Your task to perform on an android device: turn on location history Image 0: 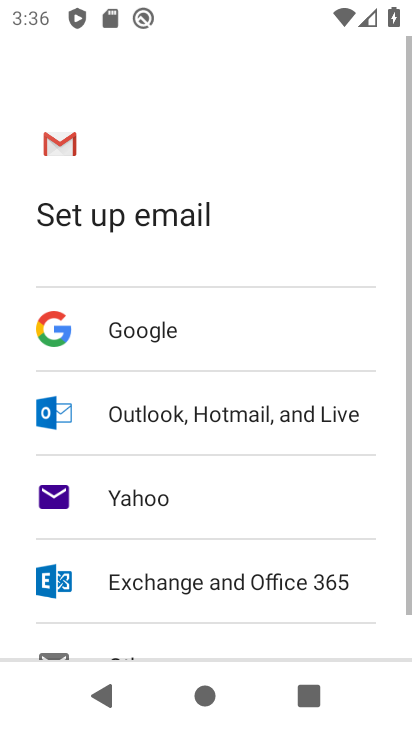
Step 0: press home button
Your task to perform on an android device: turn on location history Image 1: 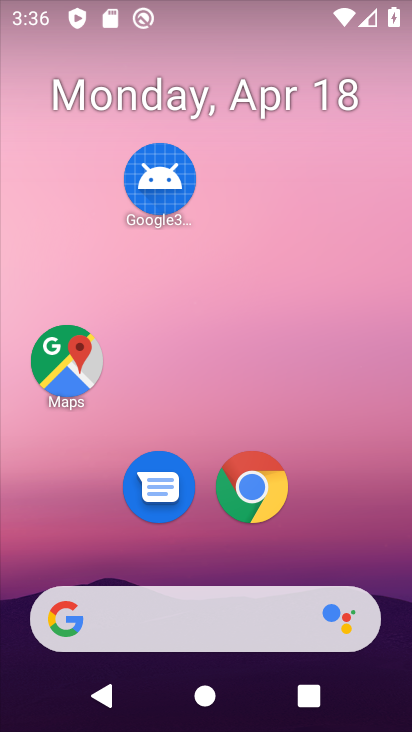
Step 1: drag from (198, 568) to (242, 25)
Your task to perform on an android device: turn on location history Image 2: 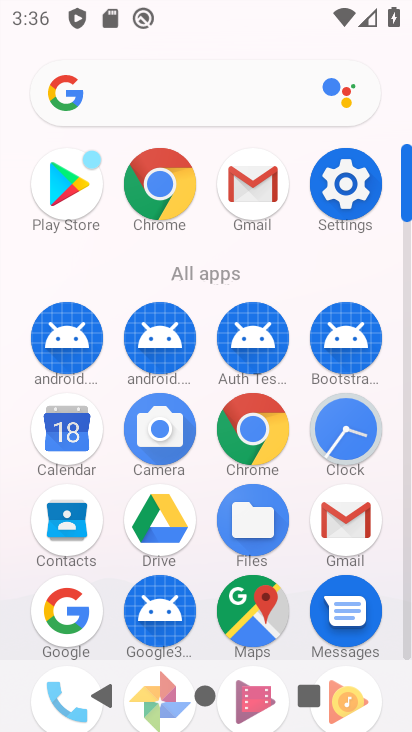
Step 2: click (339, 190)
Your task to perform on an android device: turn on location history Image 3: 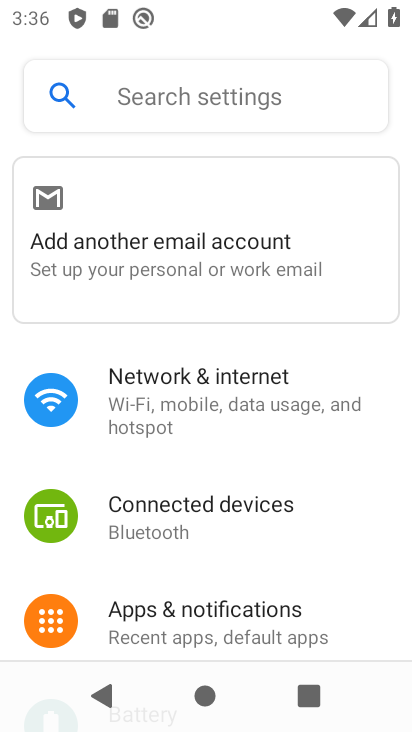
Step 3: drag from (250, 497) to (247, 53)
Your task to perform on an android device: turn on location history Image 4: 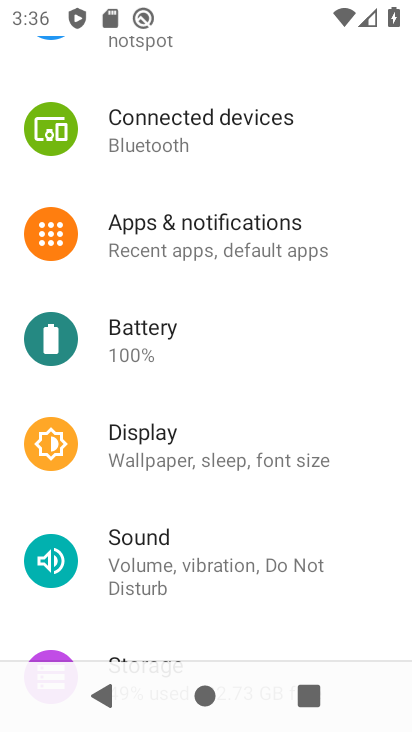
Step 4: drag from (212, 512) to (228, 247)
Your task to perform on an android device: turn on location history Image 5: 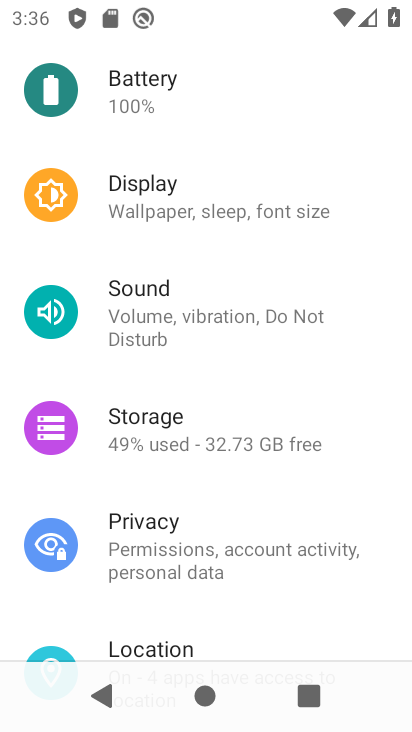
Step 5: drag from (214, 625) to (208, 428)
Your task to perform on an android device: turn on location history Image 6: 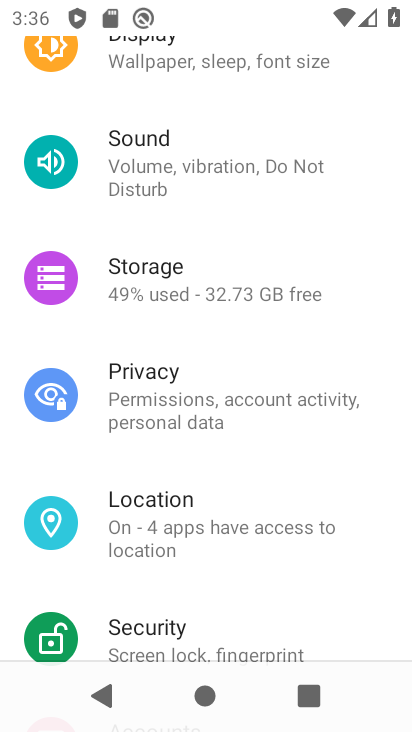
Step 6: click (169, 501)
Your task to perform on an android device: turn on location history Image 7: 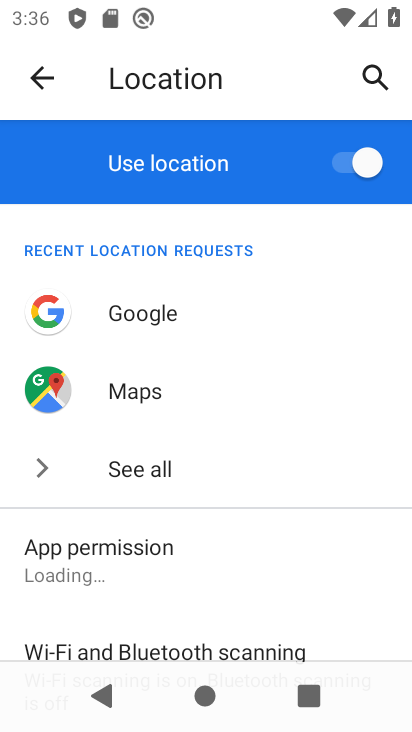
Step 7: drag from (199, 566) to (180, 297)
Your task to perform on an android device: turn on location history Image 8: 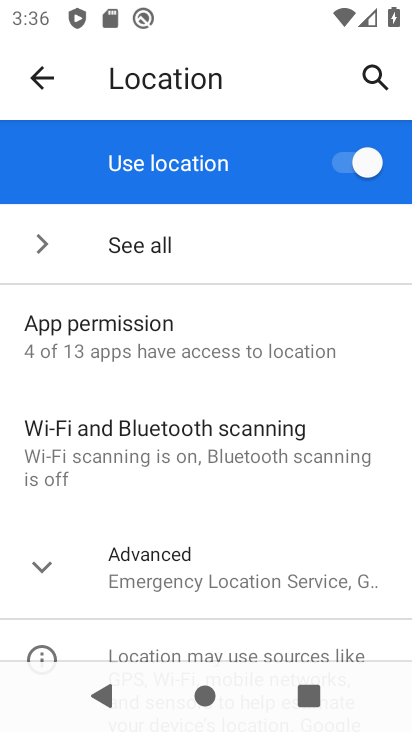
Step 8: click (166, 563)
Your task to perform on an android device: turn on location history Image 9: 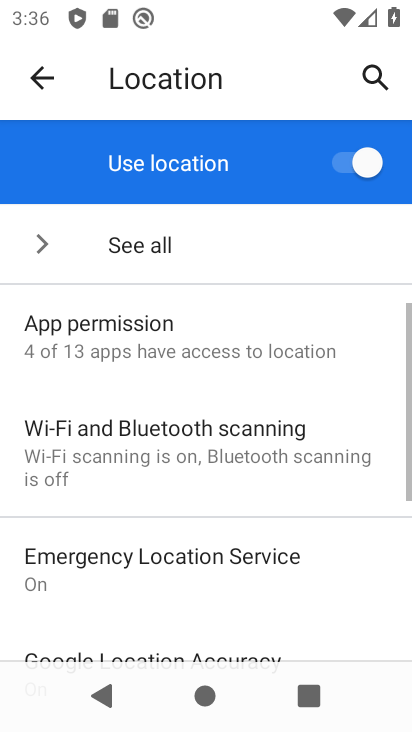
Step 9: drag from (256, 546) to (258, 239)
Your task to perform on an android device: turn on location history Image 10: 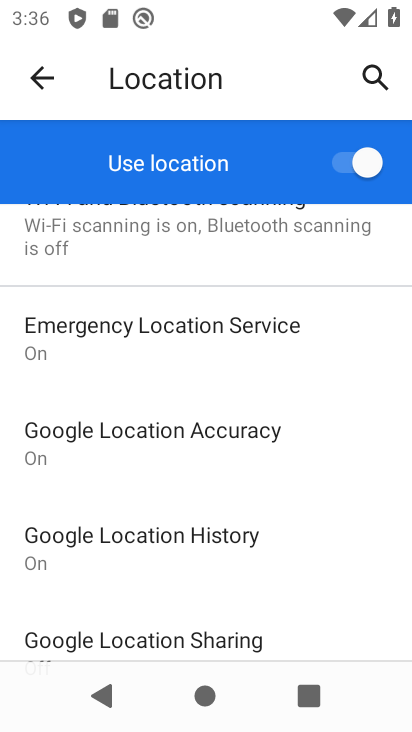
Step 10: click (193, 525)
Your task to perform on an android device: turn on location history Image 11: 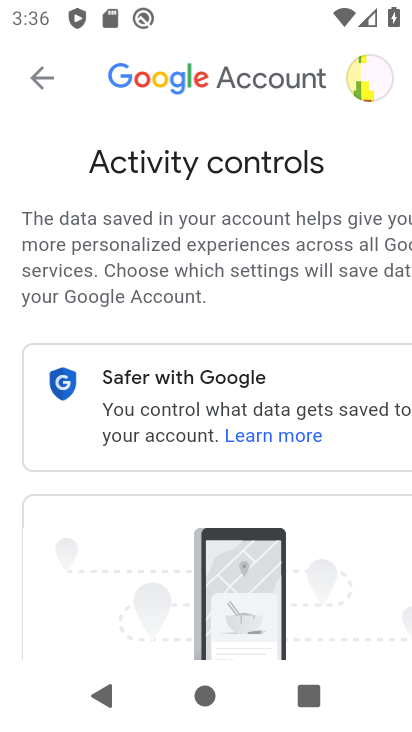
Step 11: drag from (225, 562) to (176, 9)
Your task to perform on an android device: turn on location history Image 12: 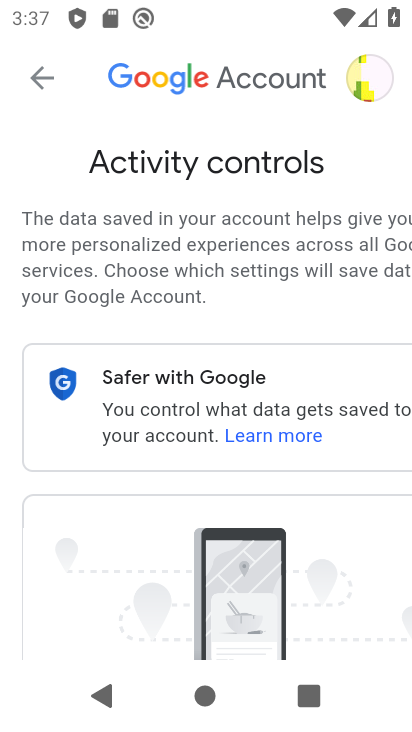
Step 12: drag from (334, 540) to (275, 13)
Your task to perform on an android device: turn on location history Image 13: 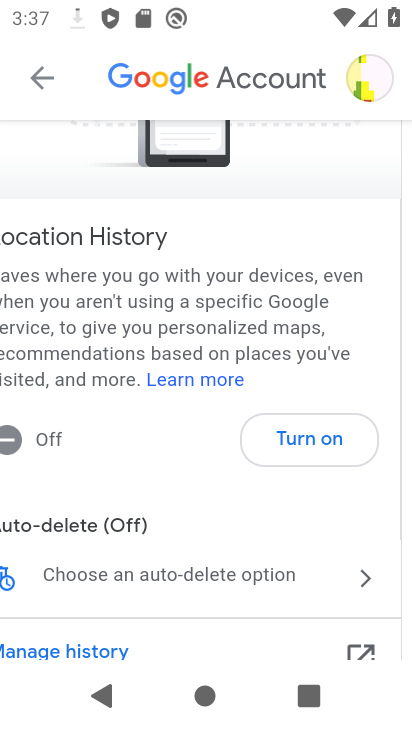
Step 13: click (321, 428)
Your task to perform on an android device: turn on location history Image 14: 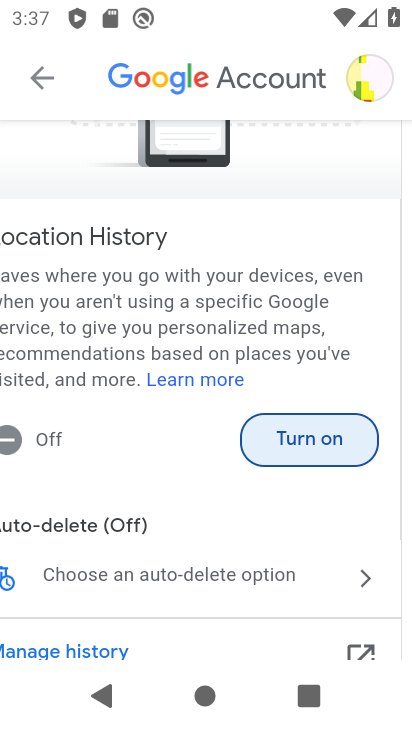
Step 14: click (322, 427)
Your task to perform on an android device: turn on location history Image 15: 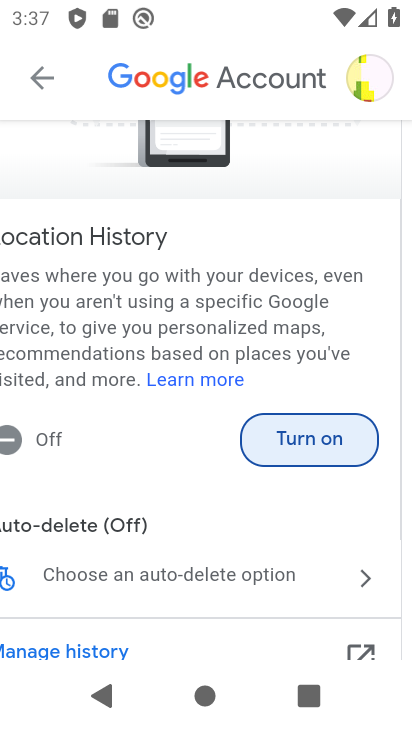
Step 15: click (289, 446)
Your task to perform on an android device: turn on location history Image 16: 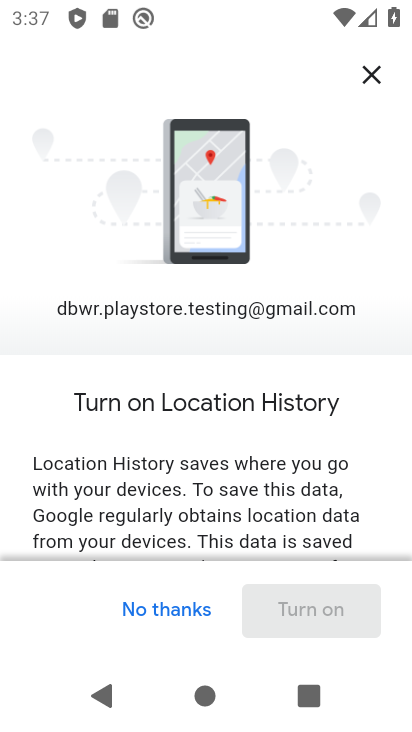
Step 16: drag from (296, 482) to (193, 16)
Your task to perform on an android device: turn on location history Image 17: 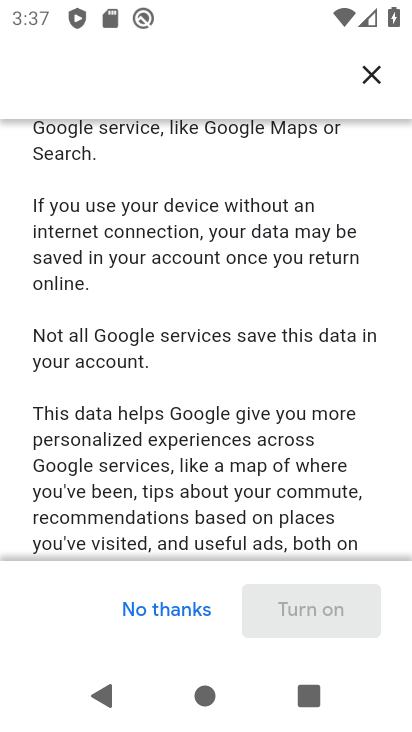
Step 17: drag from (253, 525) to (156, 7)
Your task to perform on an android device: turn on location history Image 18: 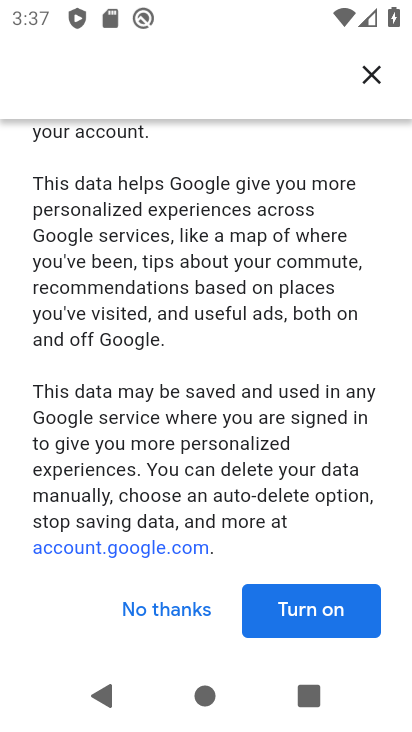
Step 18: click (290, 589)
Your task to perform on an android device: turn on location history Image 19: 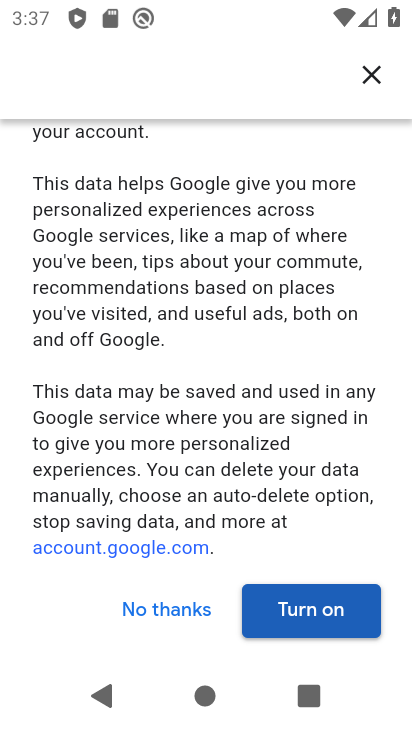
Step 19: click (312, 595)
Your task to perform on an android device: turn on location history Image 20: 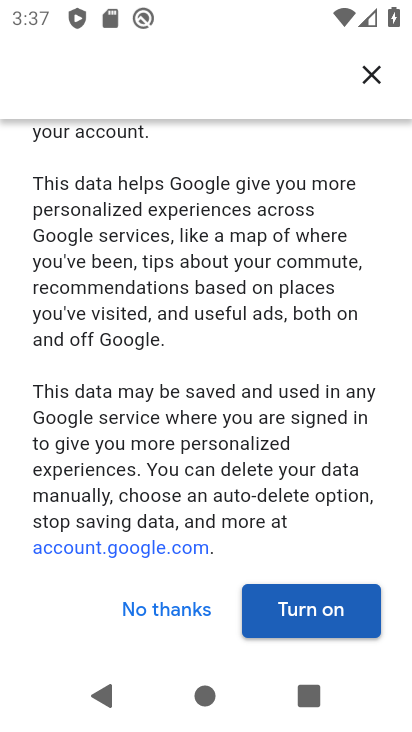
Step 20: click (320, 601)
Your task to perform on an android device: turn on location history Image 21: 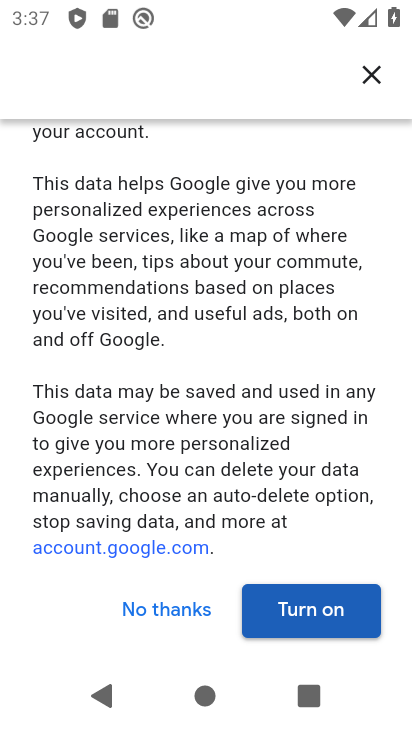
Step 21: click (271, 611)
Your task to perform on an android device: turn on location history Image 22: 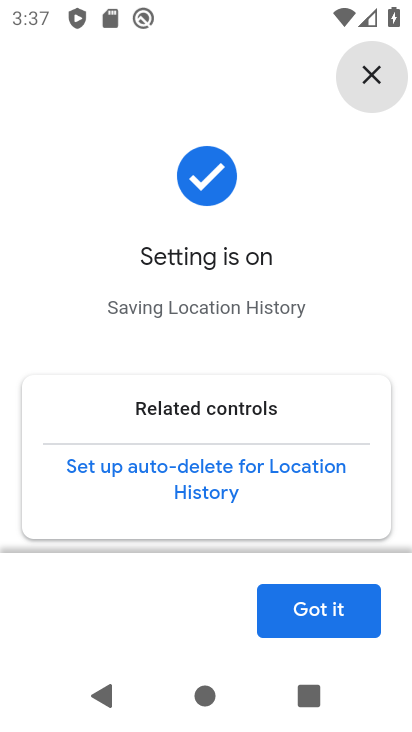
Step 22: click (291, 603)
Your task to perform on an android device: turn on location history Image 23: 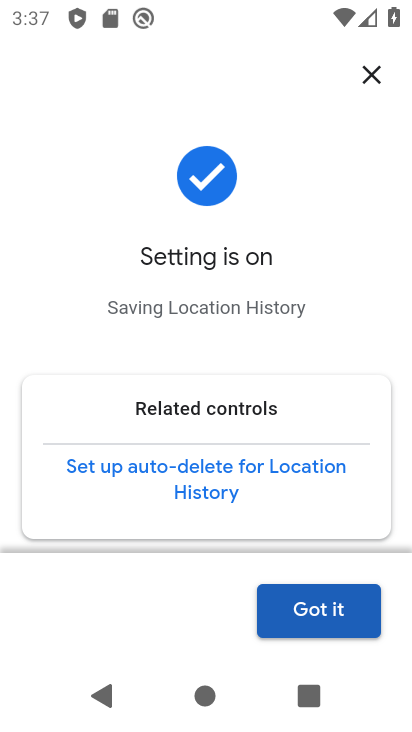
Step 23: task complete